Your task to perform on an android device: Google the capital of Colombia Image 0: 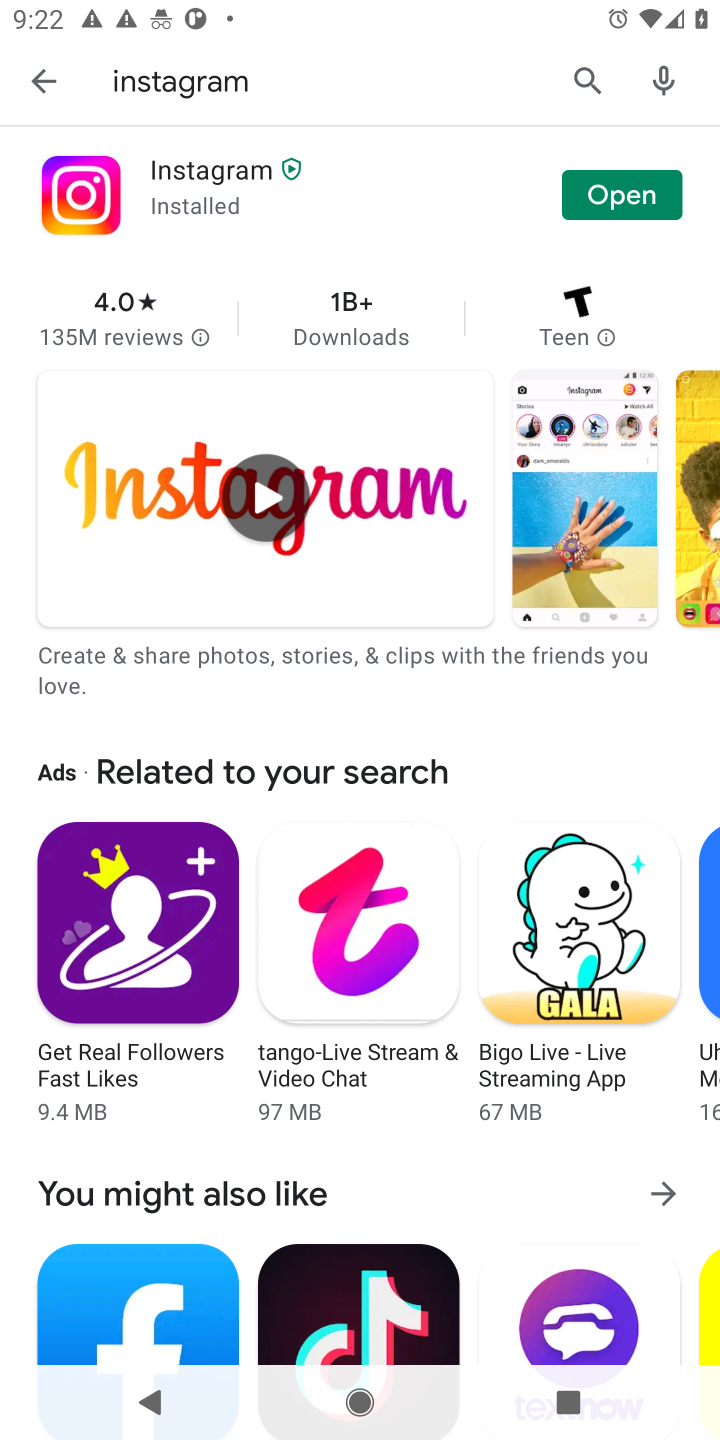
Step 0: press home button
Your task to perform on an android device: Google the capital of Colombia Image 1: 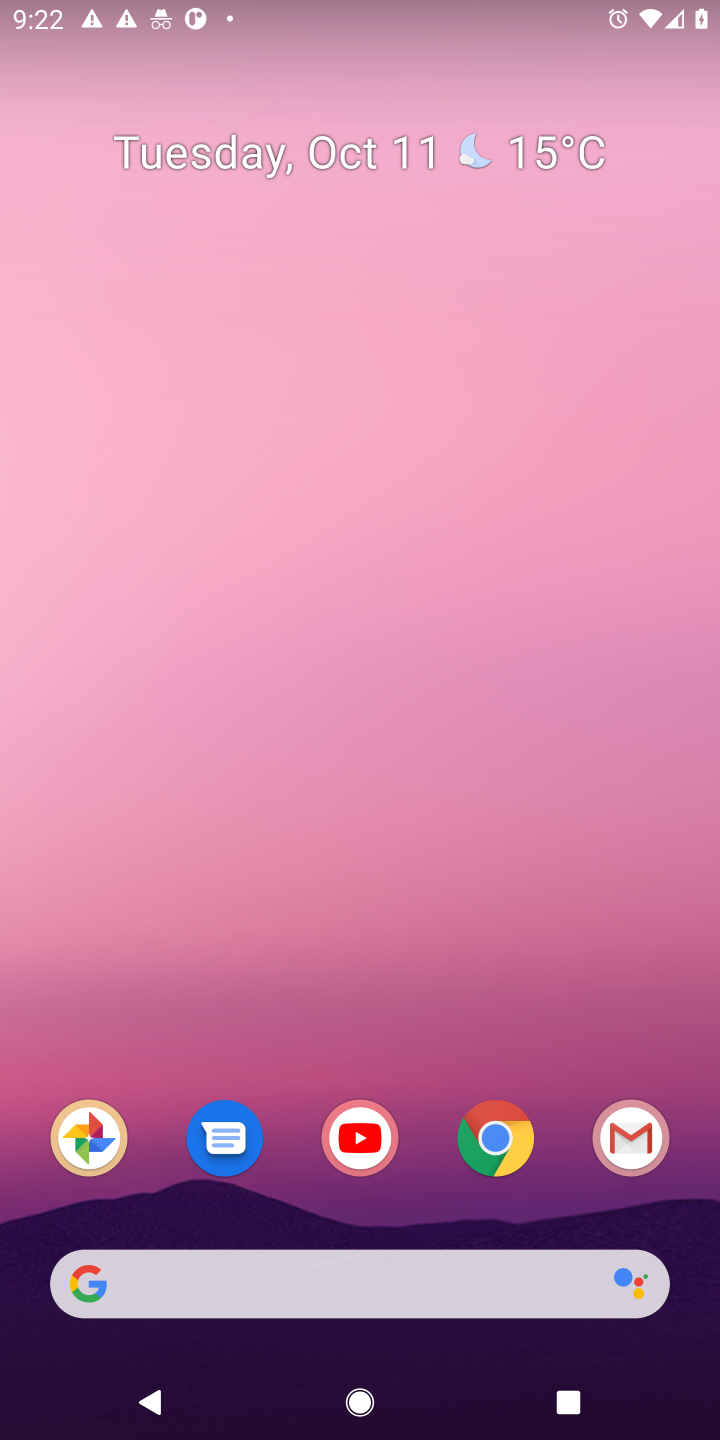
Step 1: click (323, 1264)
Your task to perform on an android device: Google the capital of Colombia Image 2: 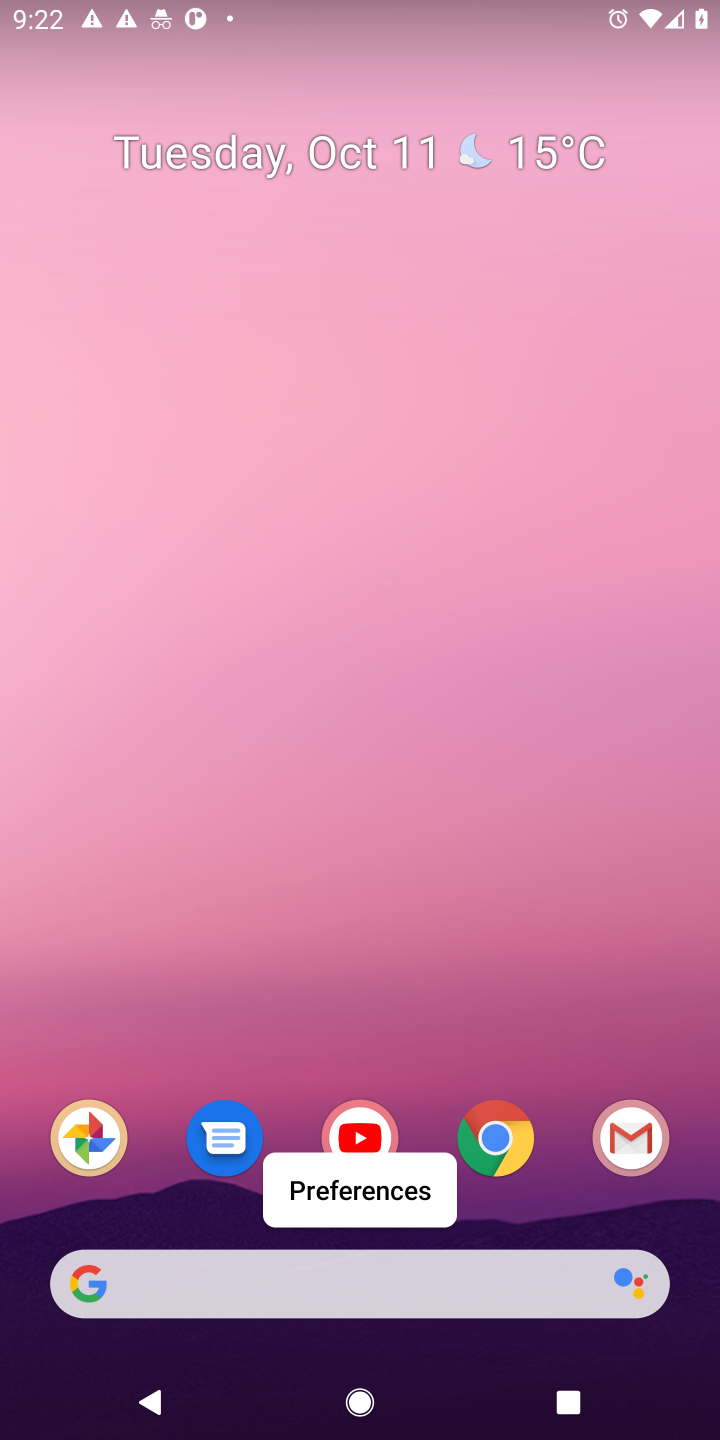
Step 2: type "capital of colombia"
Your task to perform on an android device: Google the capital of Colombia Image 3: 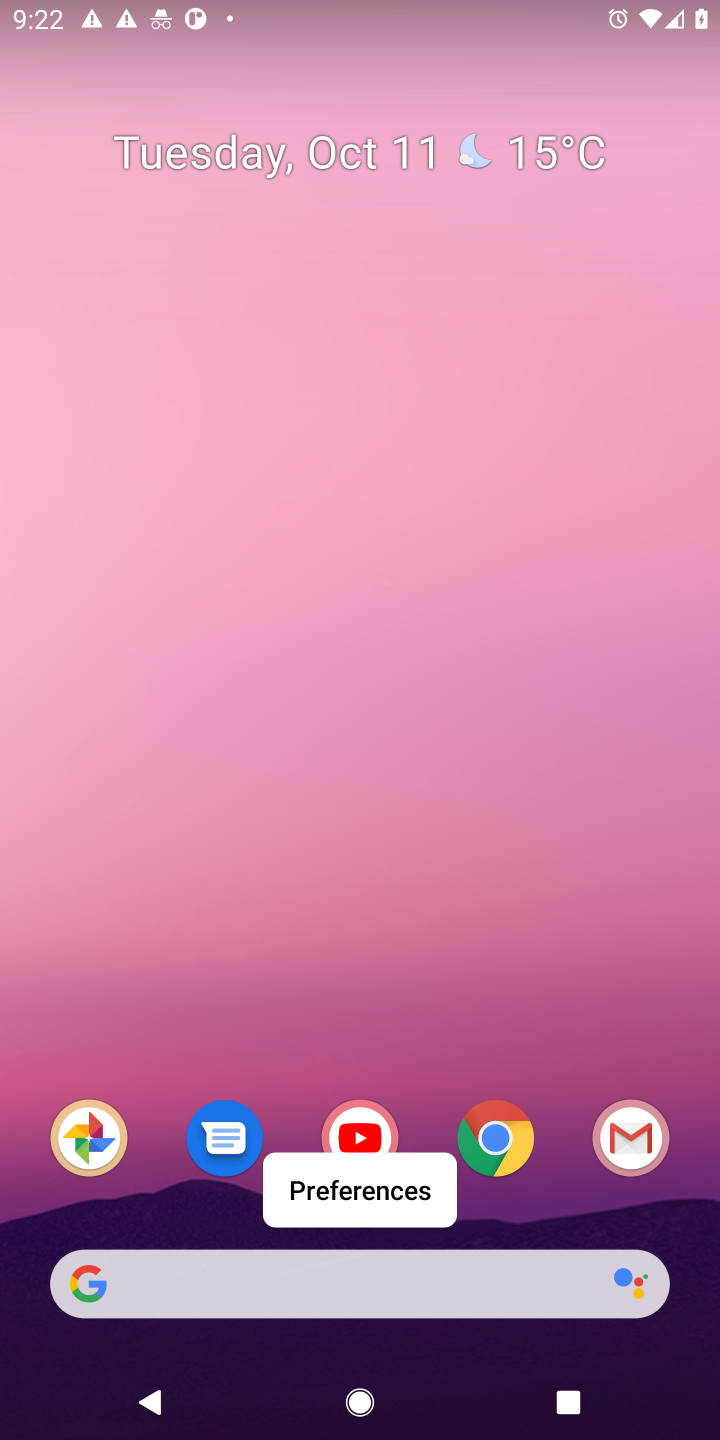
Step 3: click (143, 1296)
Your task to perform on an android device: Google the capital of Colombia Image 4: 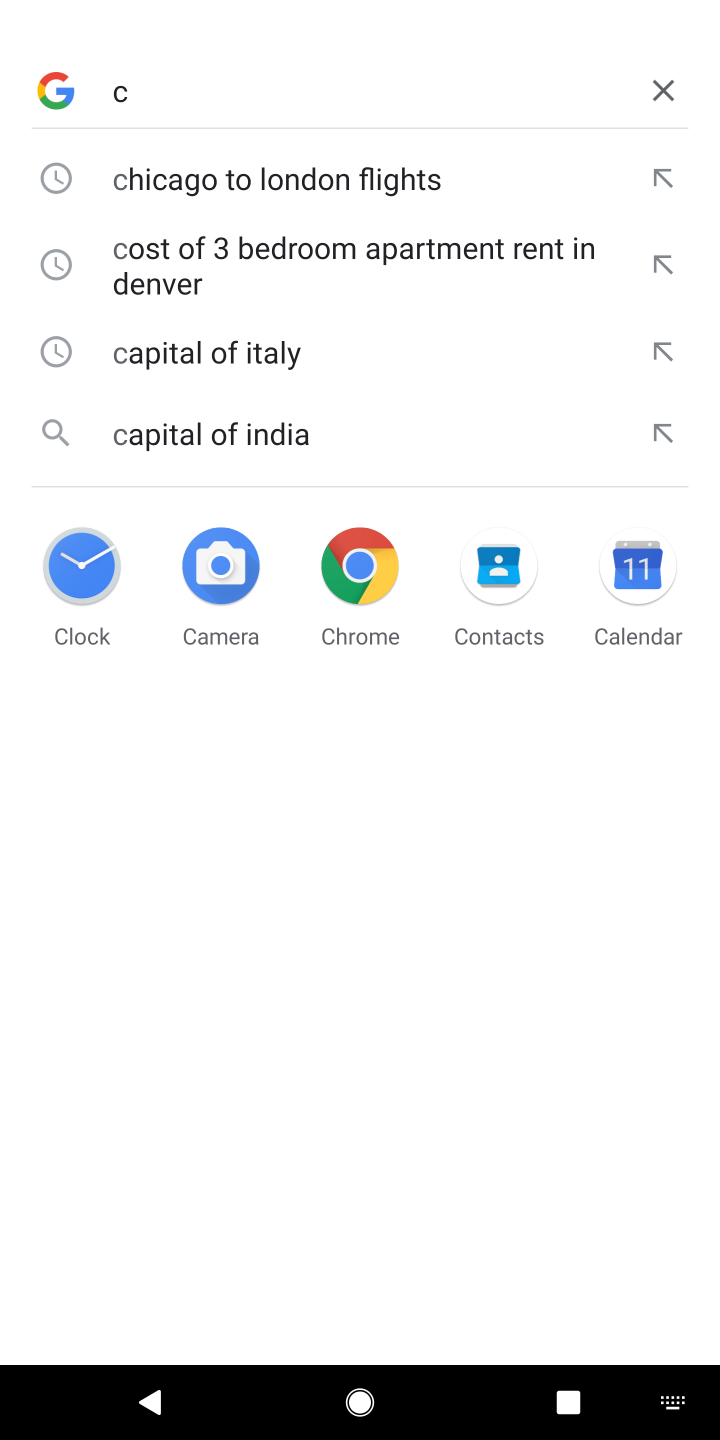
Step 4: click (664, 82)
Your task to perform on an android device: Google the capital of Colombia Image 5: 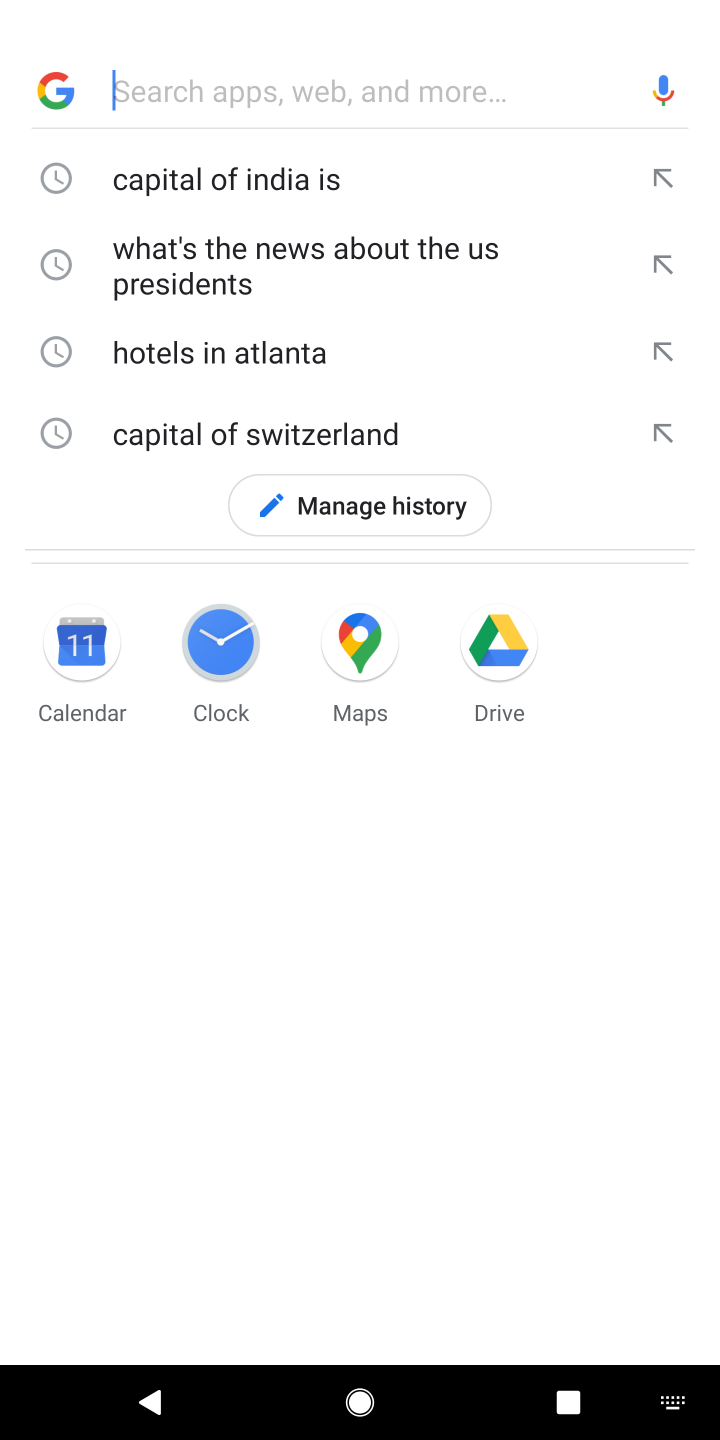
Step 5: type "capital of colombia"
Your task to perform on an android device: Google the capital of Colombia Image 6: 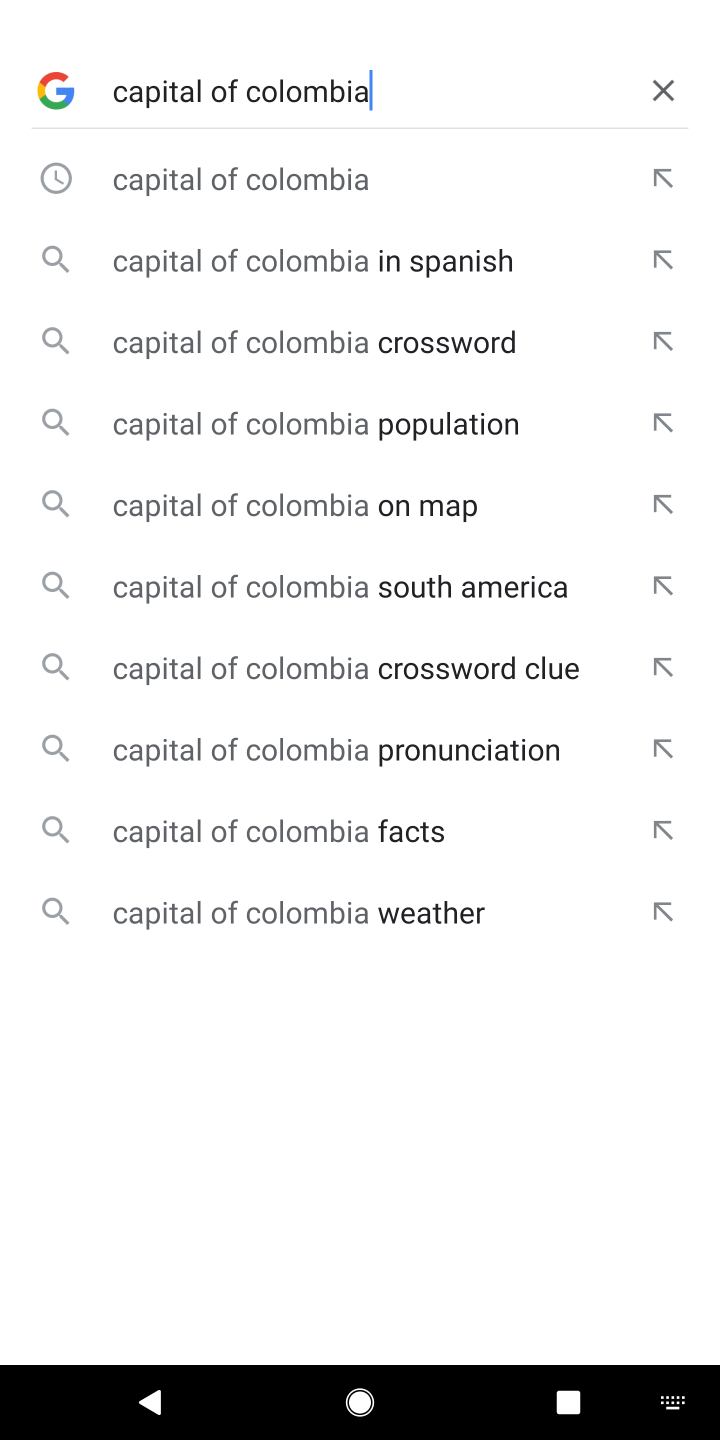
Step 6: click (247, 175)
Your task to perform on an android device: Google the capital of Colombia Image 7: 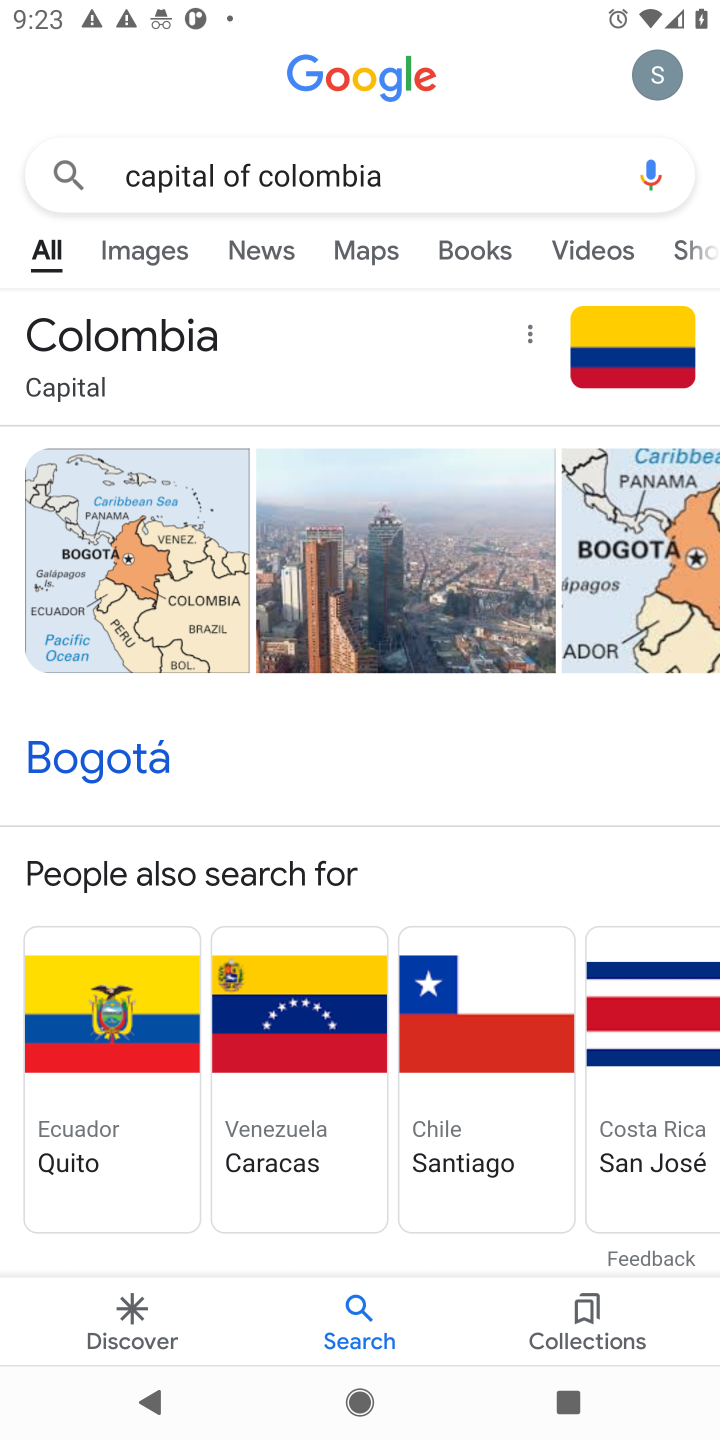
Step 7: task complete